Your task to perform on an android device: Open Google Chrome and click the shortcut for Amazon.com Image 0: 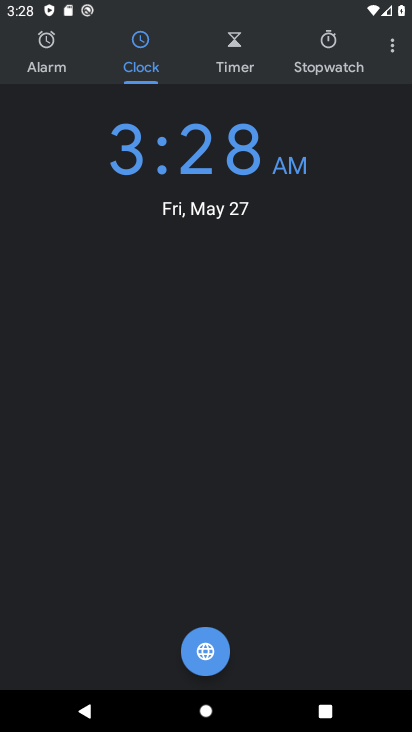
Step 0: press home button
Your task to perform on an android device: Open Google Chrome and click the shortcut for Amazon.com Image 1: 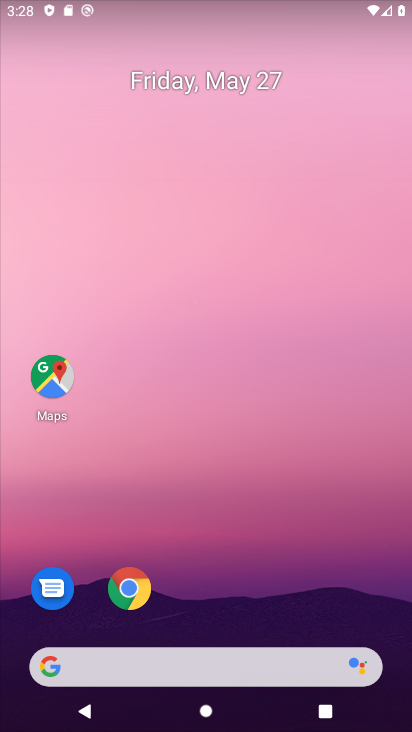
Step 1: click (140, 583)
Your task to perform on an android device: Open Google Chrome and click the shortcut for Amazon.com Image 2: 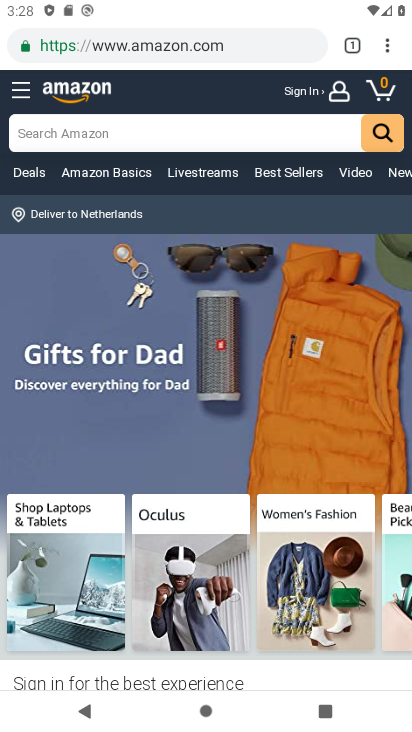
Step 2: click (379, 45)
Your task to perform on an android device: Open Google Chrome and click the shortcut for Amazon.com Image 3: 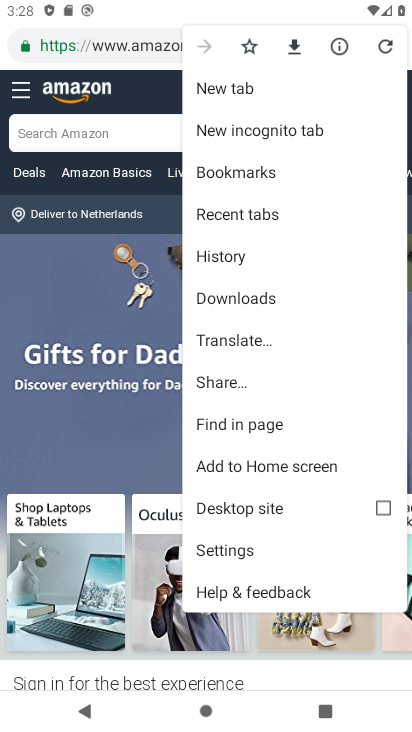
Step 3: click (51, 377)
Your task to perform on an android device: Open Google Chrome and click the shortcut for Amazon.com Image 4: 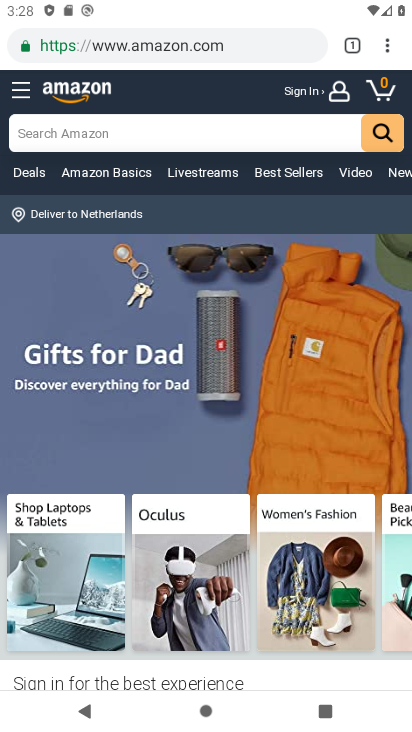
Step 4: task complete